Your task to perform on an android device: Go to battery settings Image 0: 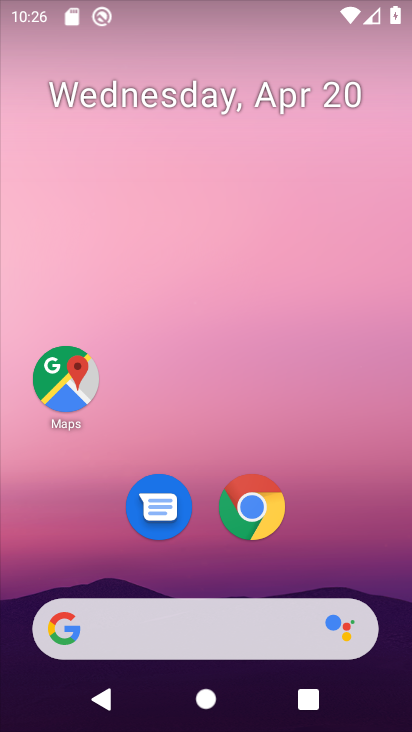
Step 0: drag from (227, 507) to (288, 150)
Your task to perform on an android device: Go to battery settings Image 1: 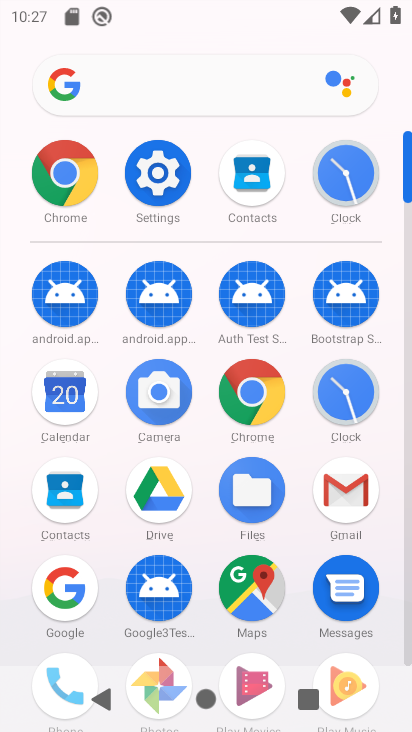
Step 1: click (145, 191)
Your task to perform on an android device: Go to battery settings Image 2: 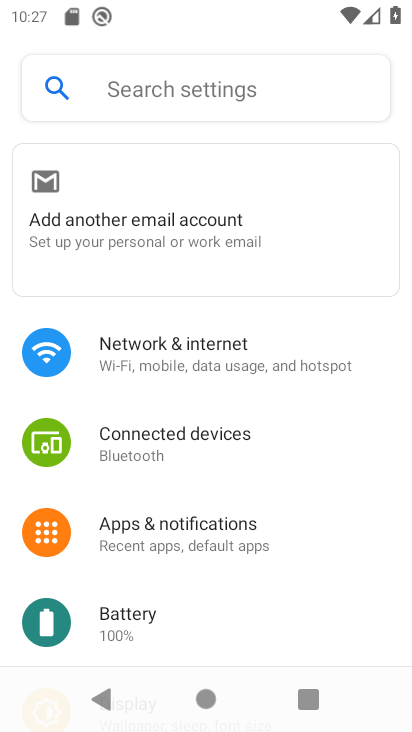
Step 2: click (125, 630)
Your task to perform on an android device: Go to battery settings Image 3: 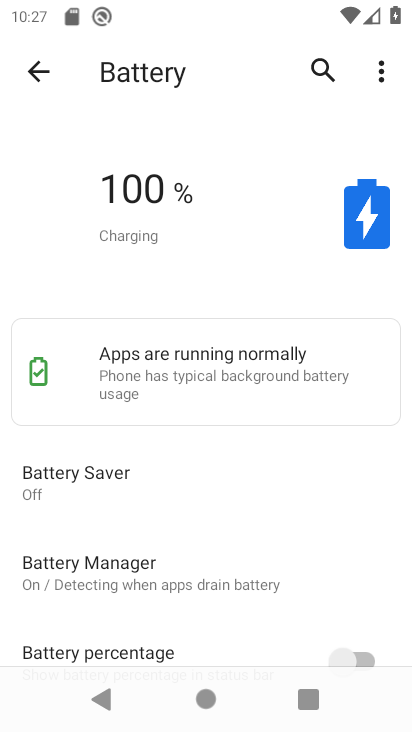
Step 3: task complete